Your task to perform on an android device: Open Chrome and go to the settings page Image 0: 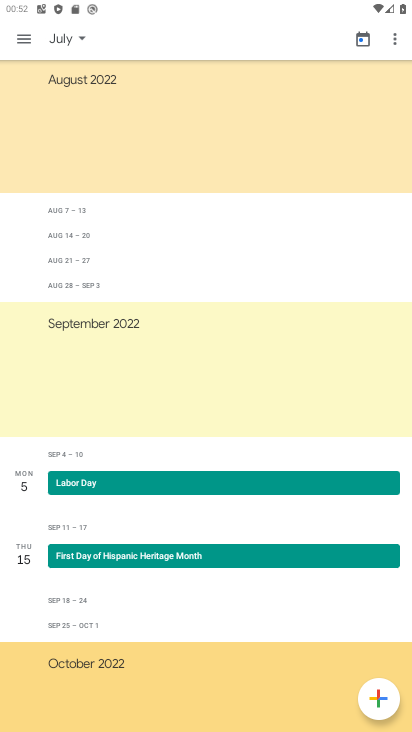
Step 0: press home button
Your task to perform on an android device: Open Chrome and go to the settings page Image 1: 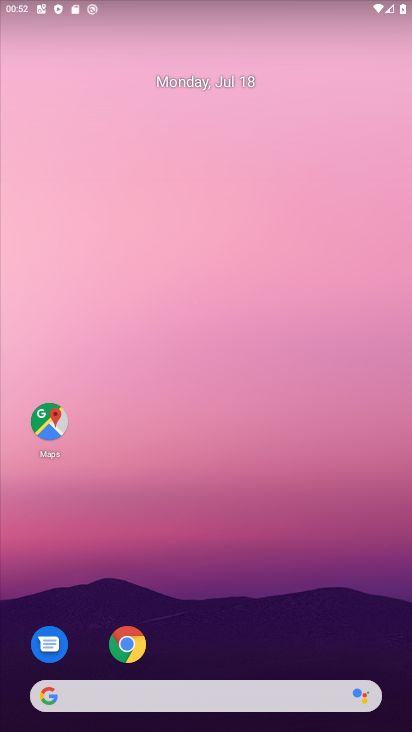
Step 1: click (124, 640)
Your task to perform on an android device: Open Chrome and go to the settings page Image 2: 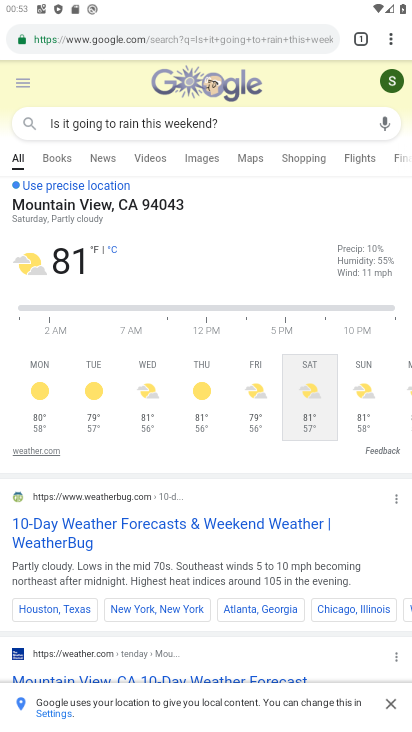
Step 2: task complete